Your task to perform on an android device: add a contact Image 0: 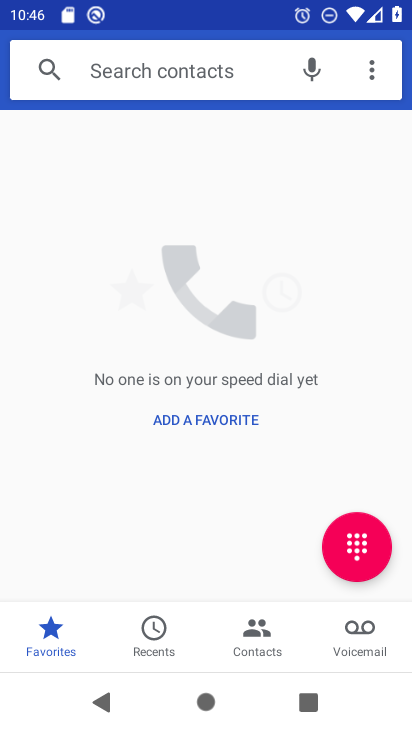
Step 0: press back button
Your task to perform on an android device: add a contact Image 1: 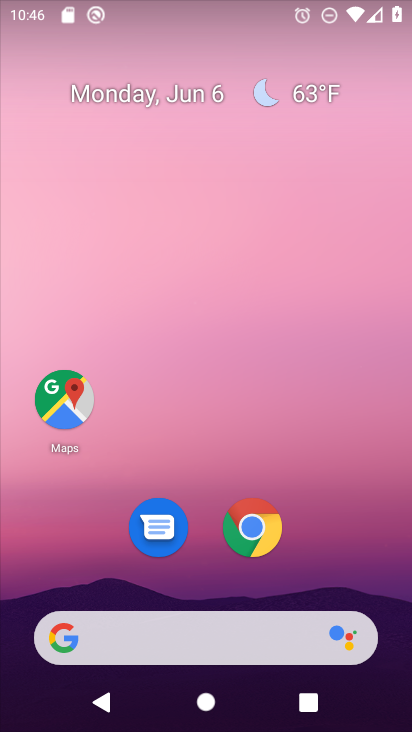
Step 1: drag from (337, 553) to (355, 260)
Your task to perform on an android device: add a contact Image 2: 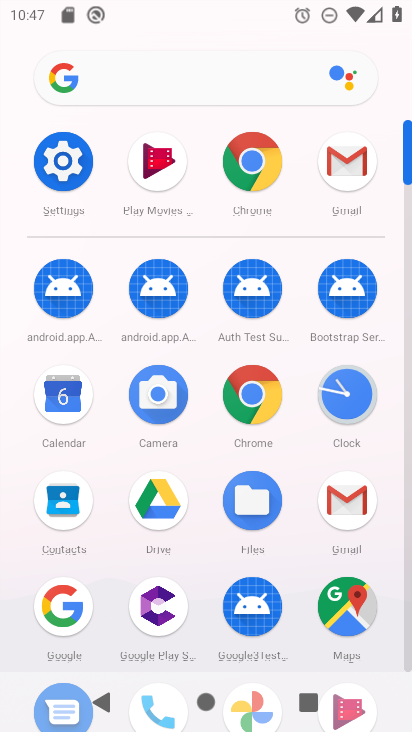
Step 2: click (63, 521)
Your task to perform on an android device: add a contact Image 3: 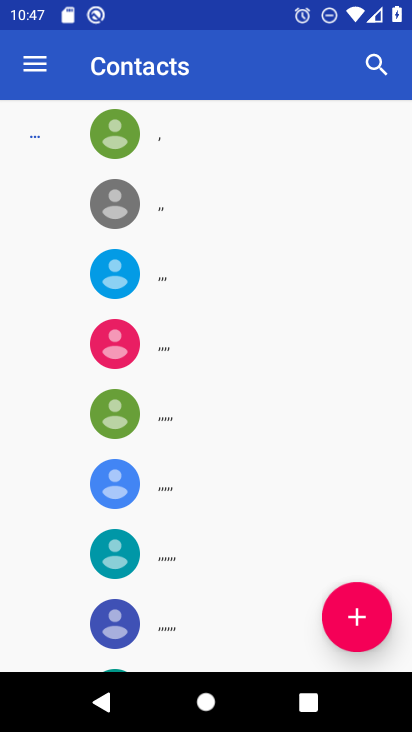
Step 3: click (361, 617)
Your task to perform on an android device: add a contact Image 4: 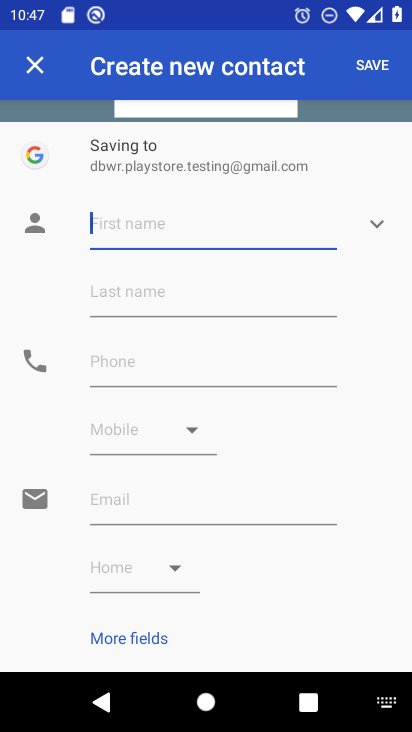
Step 4: click (311, 219)
Your task to perform on an android device: add a contact Image 5: 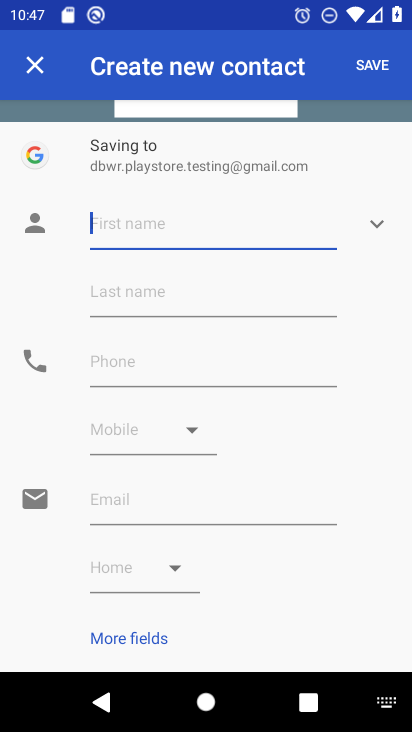
Step 5: type "lolololololo"
Your task to perform on an android device: add a contact Image 6: 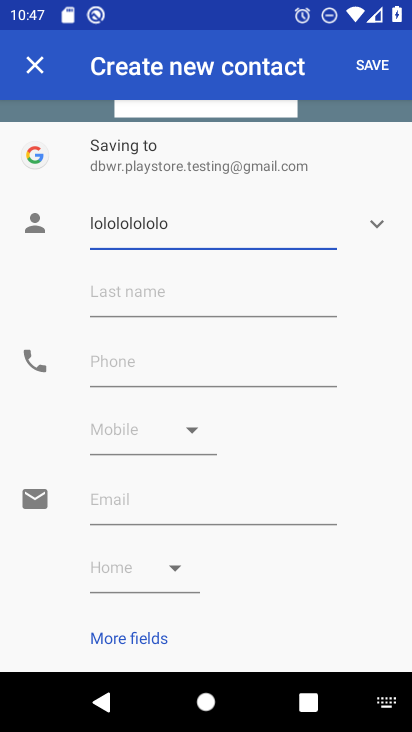
Step 6: click (263, 370)
Your task to perform on an android device: add a contact Image 7: 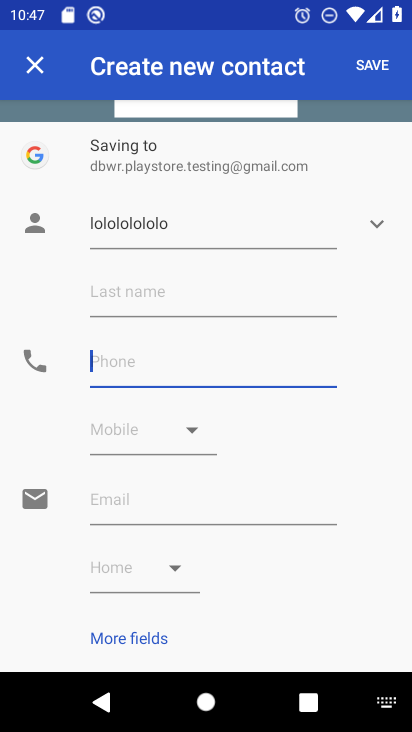
Step 7: type "6777888888999999"
Your task to perform on an android device: add a contact Image 8: 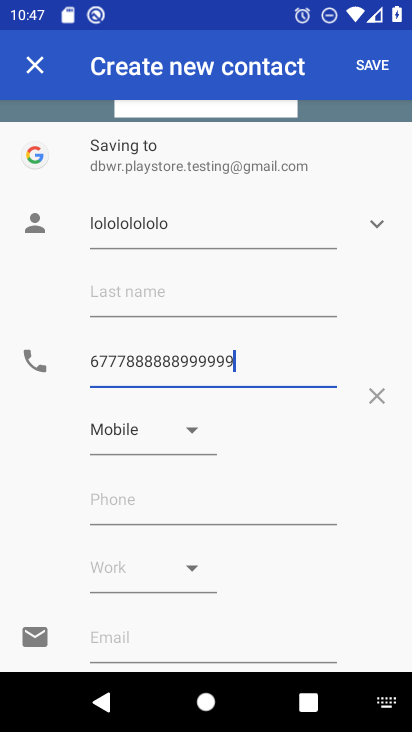
Step 8: click (384, 69)
Your task to perform on an android device: add a contact Image 9: 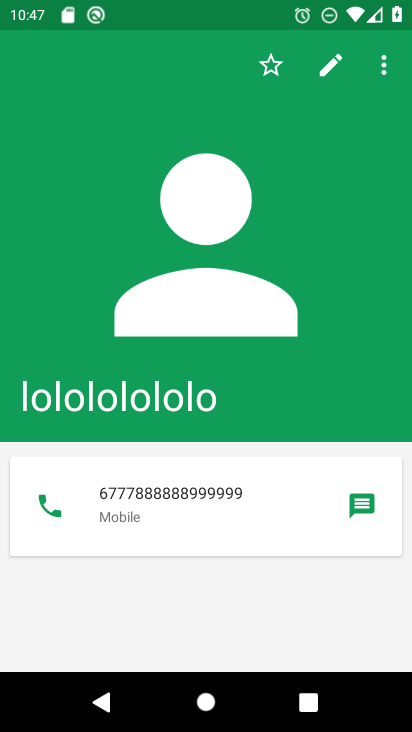
Step 9: task complete